Your task to perform on an android device: Go to Amazon Image 0: 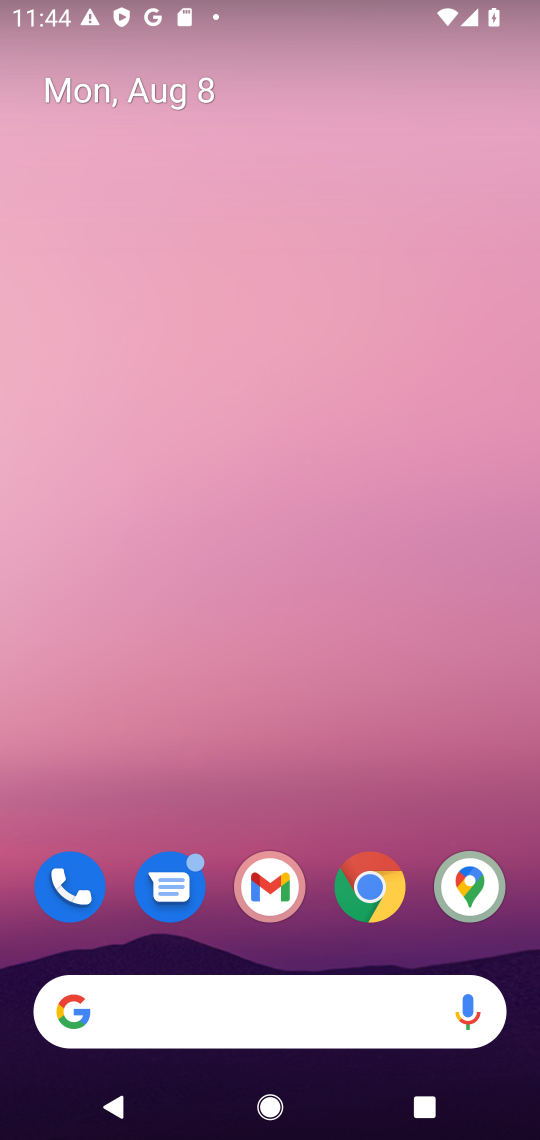
Step 0: click (378, 898)
Your task to perform on an android device: Go to Amazon Image 1: 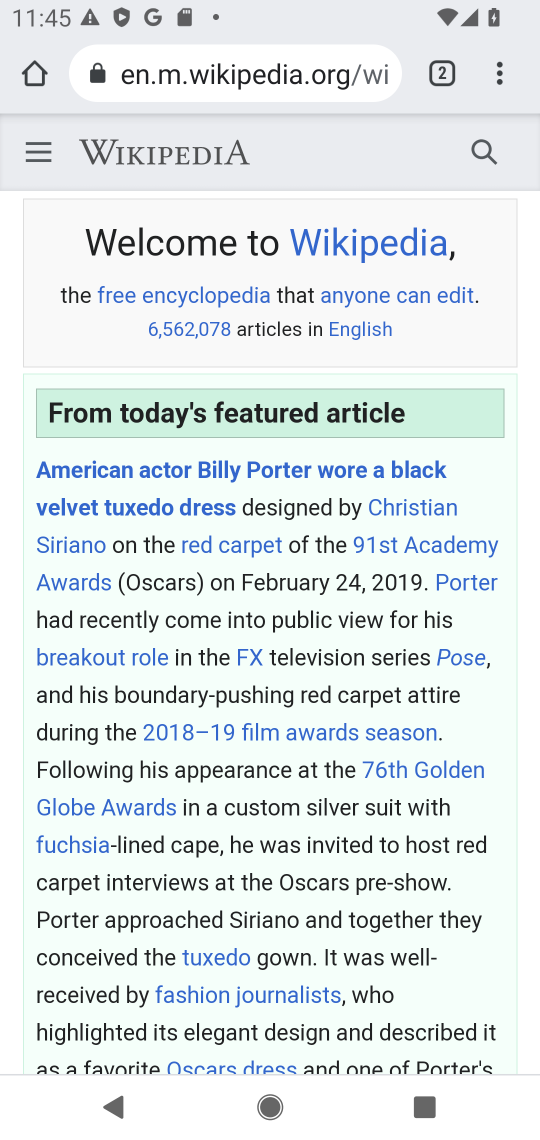
Step 1: click (508, 69)
Your task to perform on an android device: Go to Amazon Image 2: 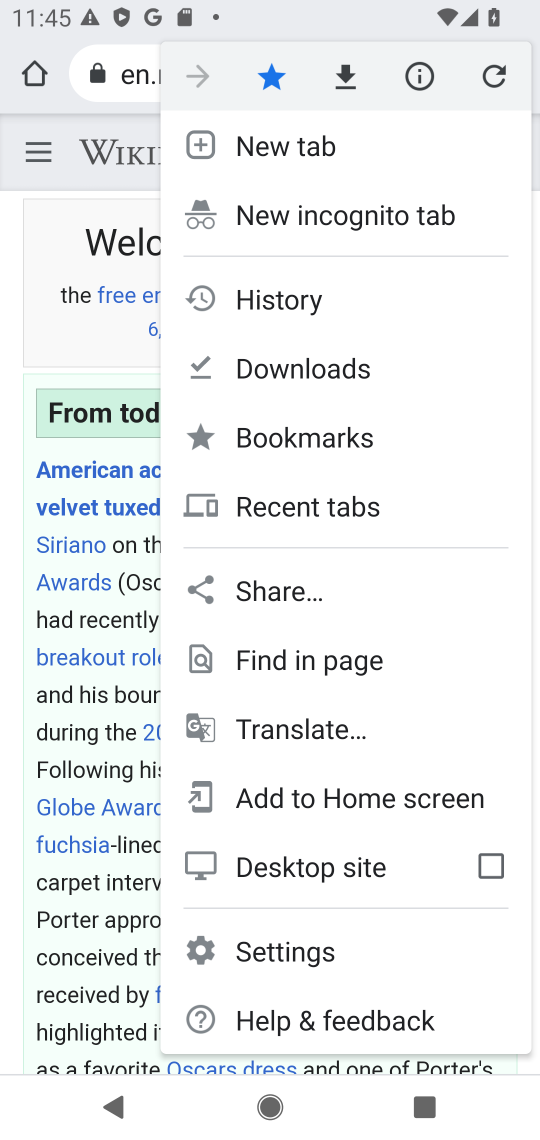
Step 2: click (290, 143)
Your task to perform on an android device: Go to Amazon Image 3: 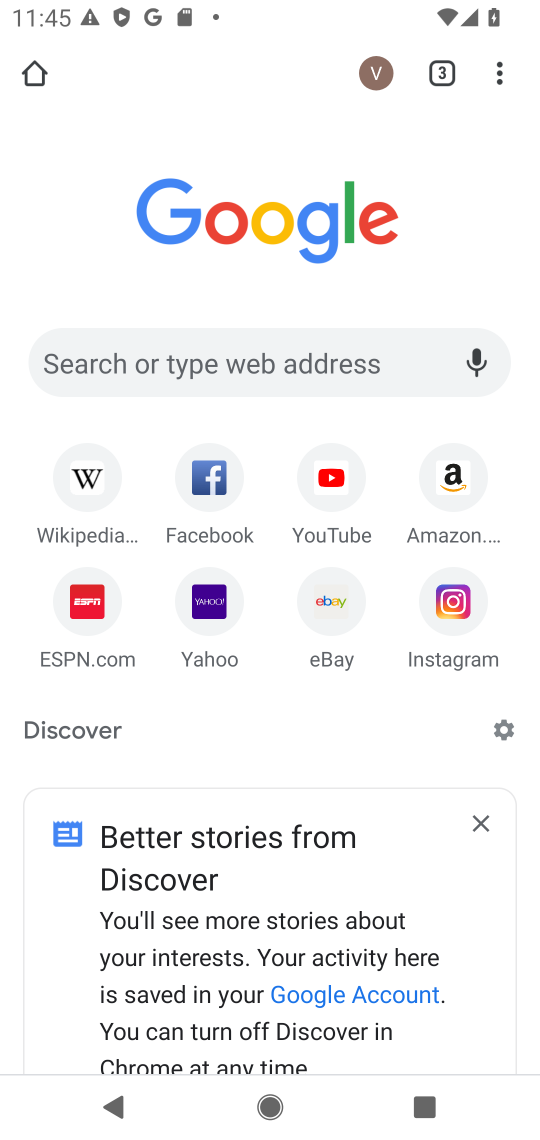
Step 3: click (451, 476)
Your task to perform on an android device: Go to Amazon Image 4: 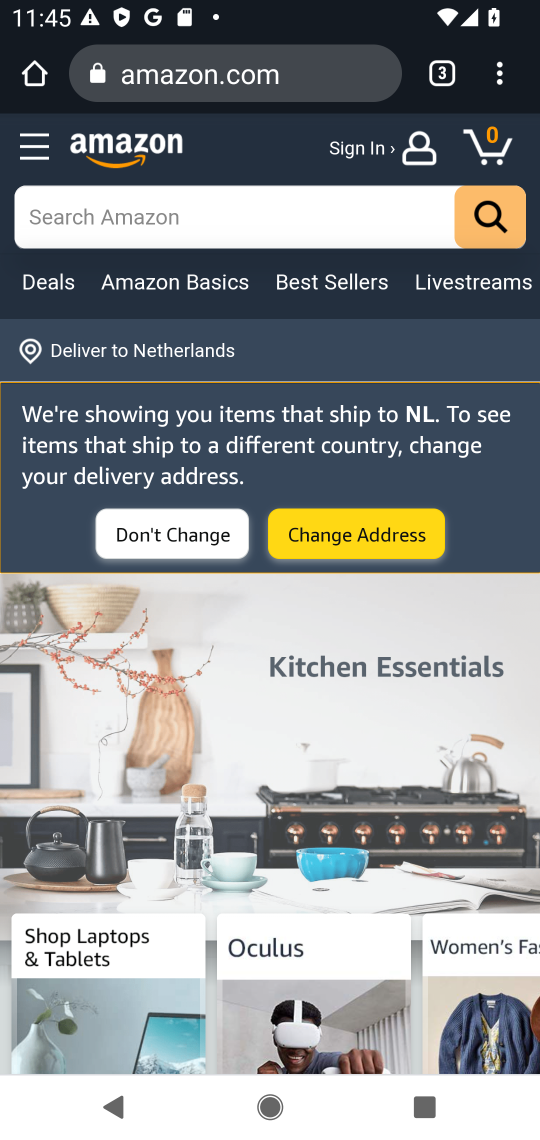
Step 4: task complete